Your task to perform on an android device: find which apps use the phone's location Image 0: 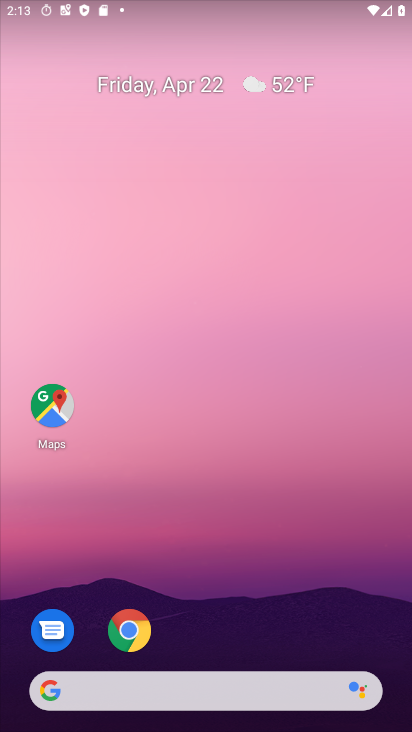
Step 0: drag from (380, 500) to (400, 118)
Your task to perform on an android device: find which apps use the phone's location Image 1: 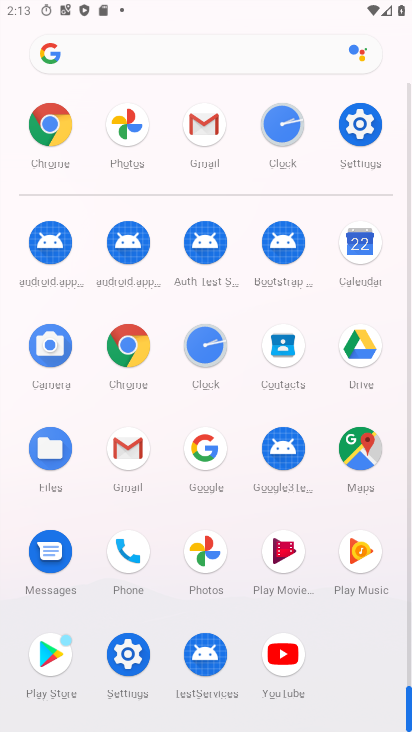
Step 1: click (358, 124)
Your task to perform on an android device: find which apps use the phone's location Image 2: 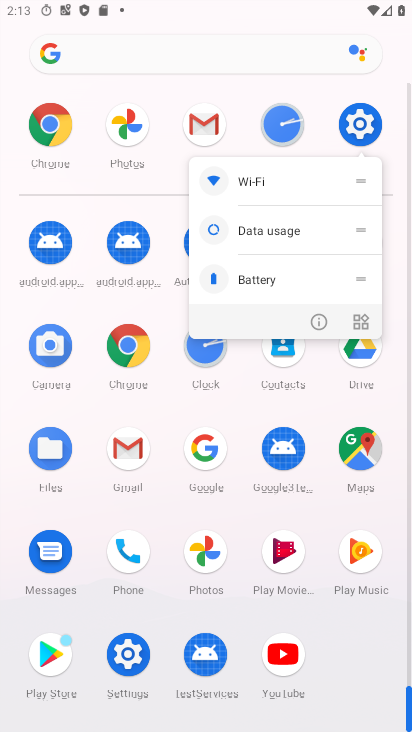
Step 2: click (358, 124)
Your task to perform on an android device: find which apps use the phone's location Image 3: 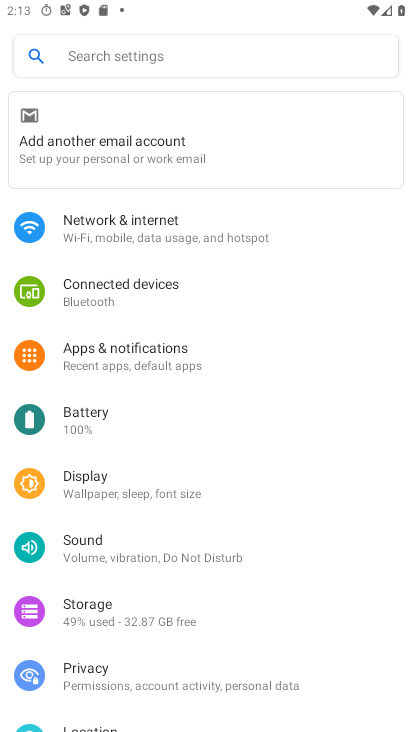
Step 3: click (86, 725)
Your task to perform on an android device: find which apps use the phone's location Image 4: 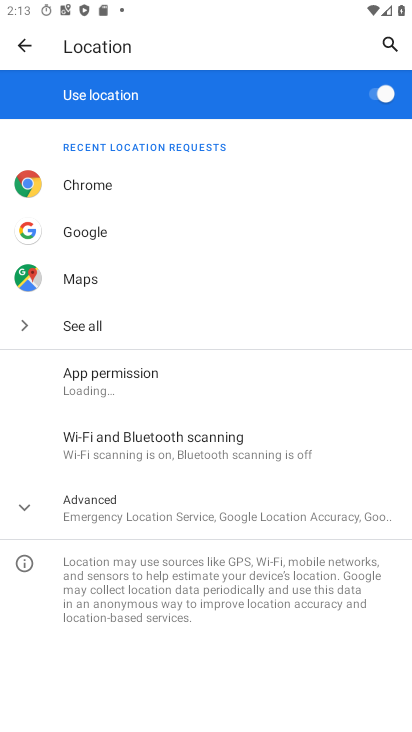
Step 4: click (90, 372)
Your task to perform on an android device: find which apps use the phone's location Image 5: 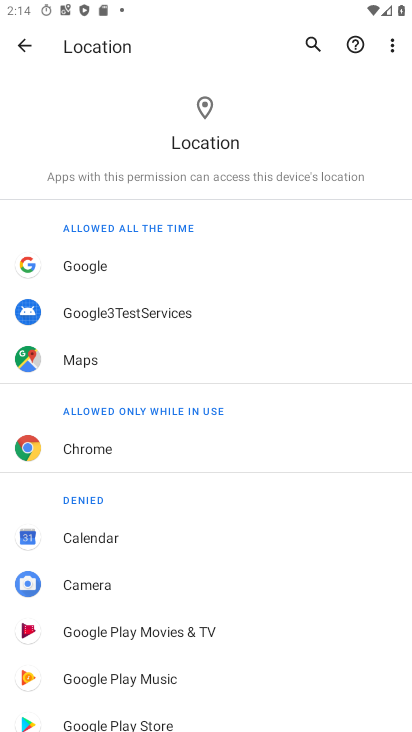
Step 5: task complete